Your task to perform on an android device: Find coffee shops on Maps Image 0: 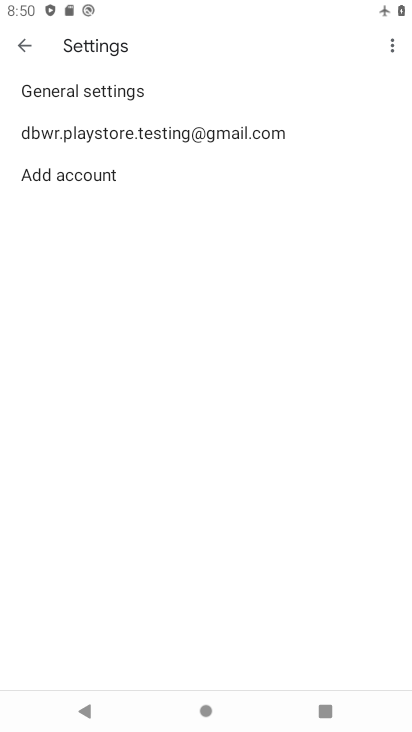
Step 0: press home button
Your task to perform on an android device: Find coffee shops on Maps Image 1: 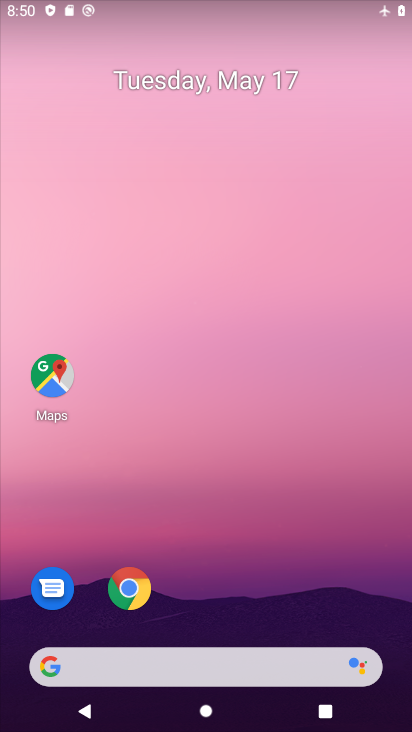
Step 1: click (40, 376)
Your task to perform on an android device: Find coffee shops on Maps Image 2: 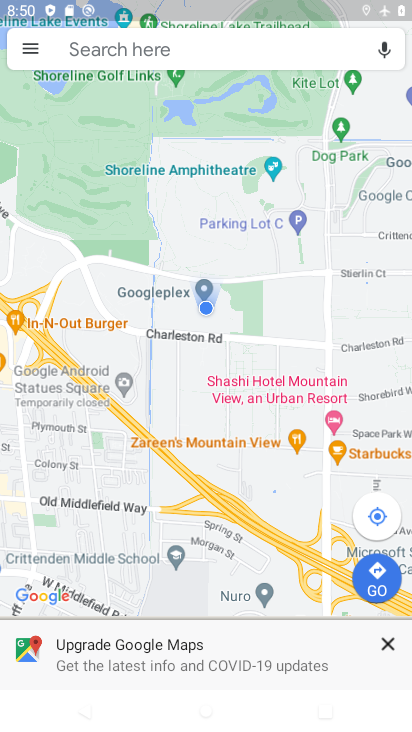
Step 2: click (95, 42)
Your task to perform on an android device: Find coffee shops on Maps Image 3: 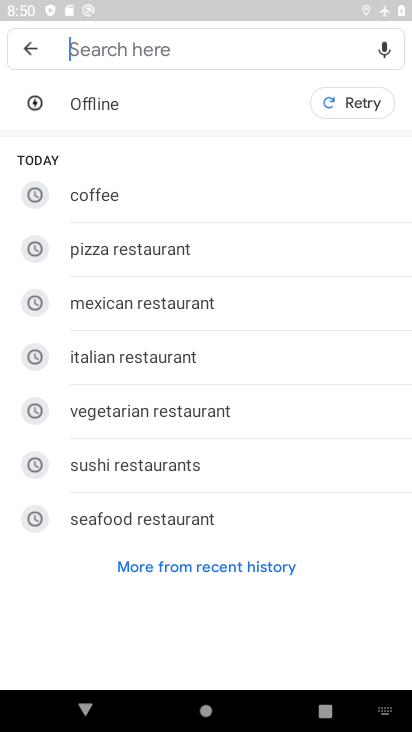
Step 3: type "coffee shops"
Your task to perform on an android device: Find coffee shops on Maps Image 4: 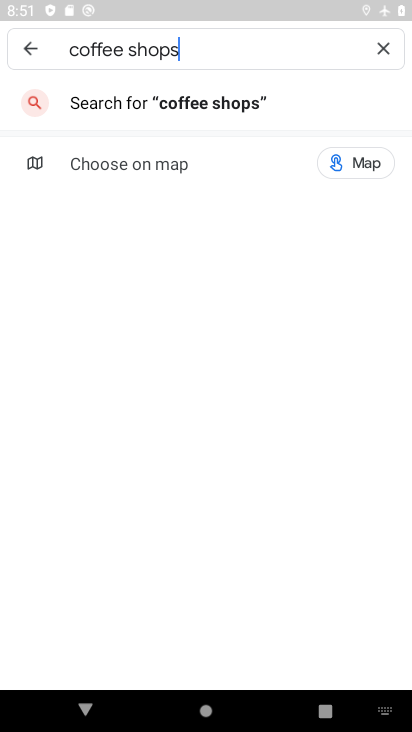
Step 4: click (208, 93)
Your task to perform on an android device: Find coffee shops on Maps Image 5: 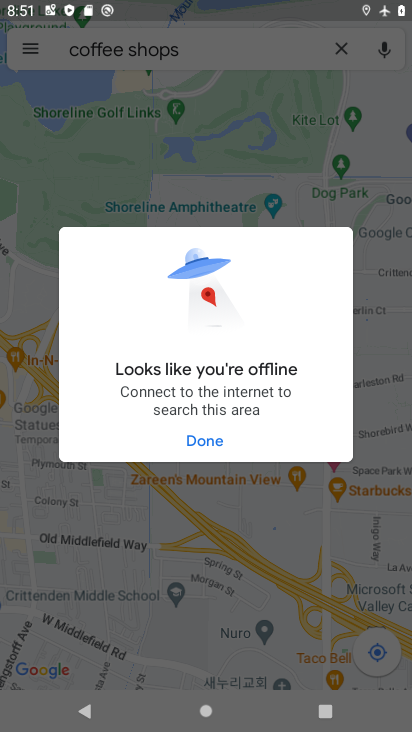
Step 5: task complete